Your task to perform on an android device: Show the shopping cart on costco.com. Search for "bose quietcomfort 35" on costco.com, select the first entry, and add it to the cart. Image 0: 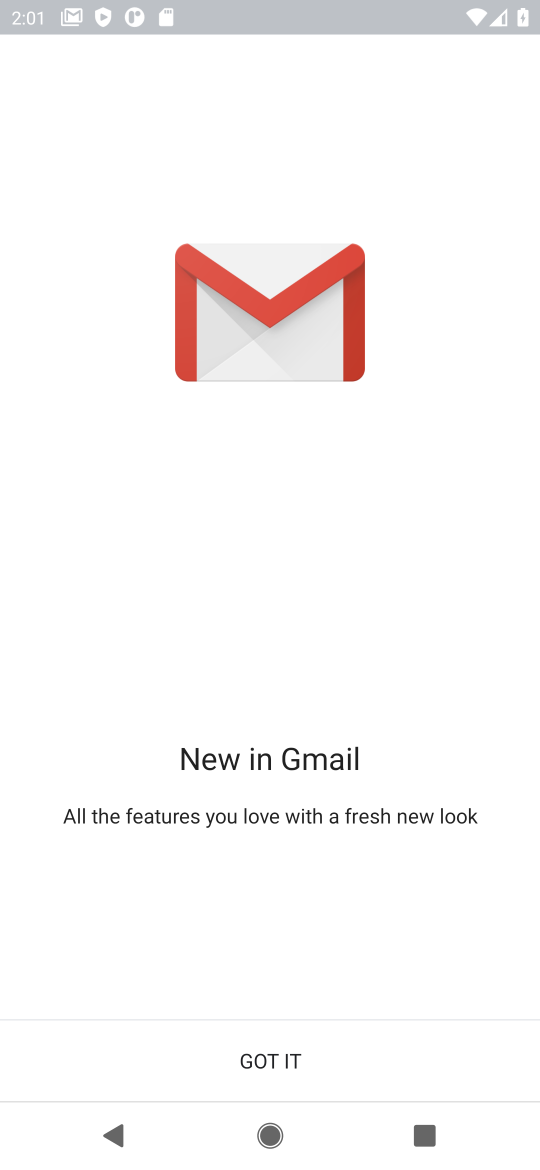
Step 0: press home button
Your task to perform on an android device: Show the shopping cart on costco.com. Search for "bose quietcomfort 35" on costco.com, select the first entry, and add it to the cart. Image 1: 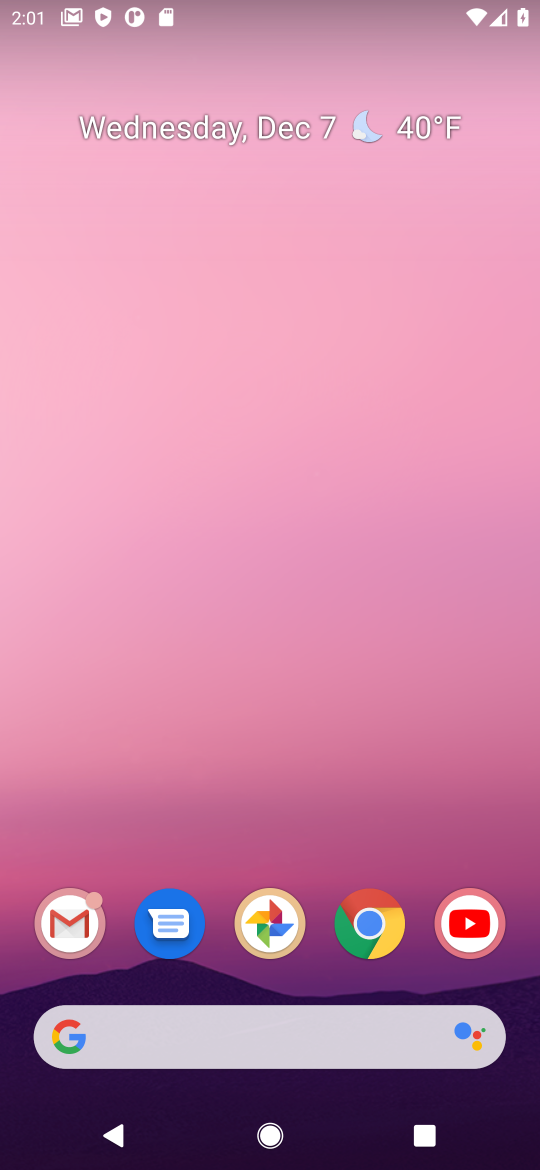
Step 1: click (368, 923)
Your task to perform on an android device: Show the shopping cart on costco.com. Search for "bose quietcomfort 35" on costco.com, select the first entry, and add it to the cart. Image 2: 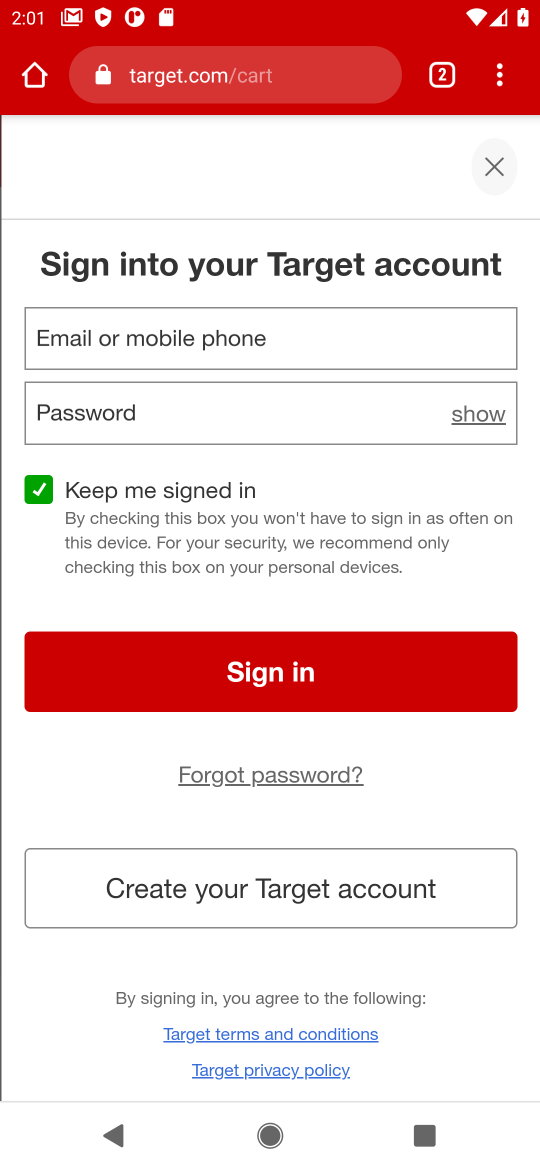
Step 2: click (235, 68)
Your task to perform on an android device: Show the shopping cart on costco.com. Search for "bose quietcomfort 35" on costco.com, select the first entry, and add it to the cart. Image 3: 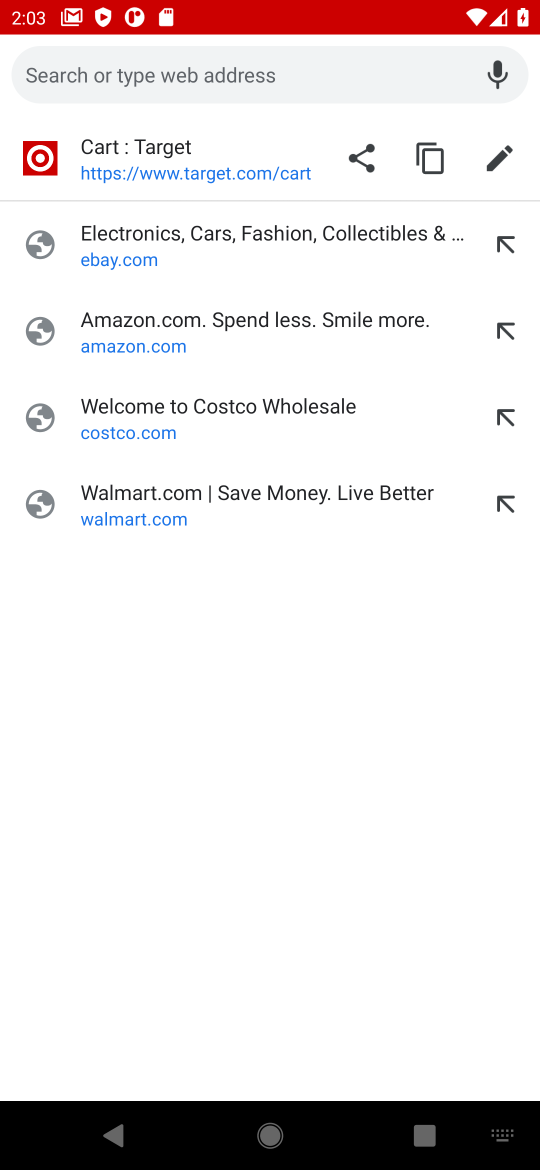
Step 3: click (155, 427)
Your task to perform on an android device: Show the shopping cart on costco.com. Search for "bose quietcomfort 35" on costco.com, select the first entry, and add it to the cart. Image 4: 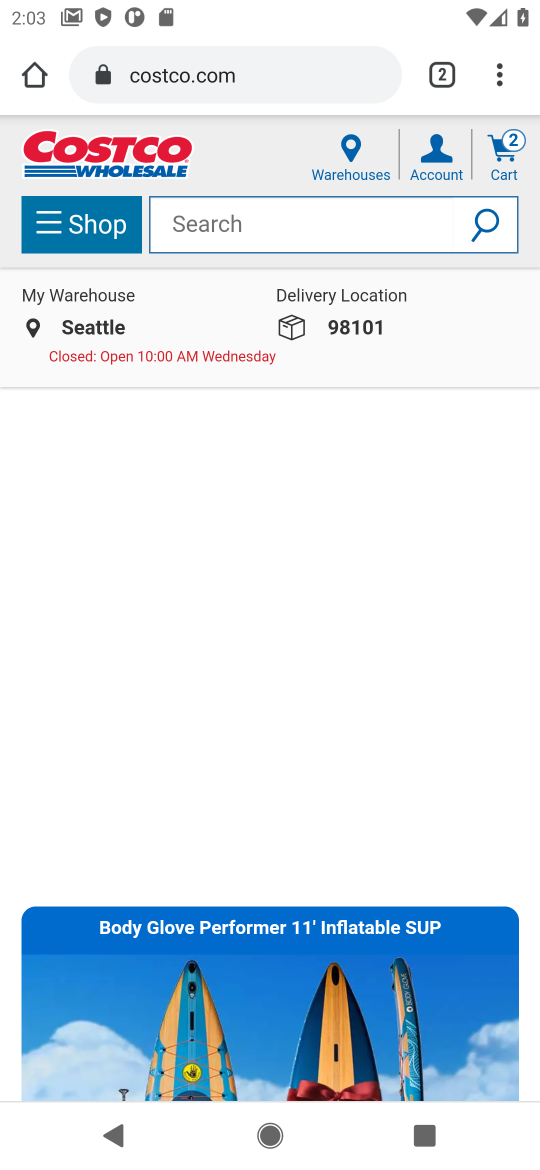
Step 4: click (236, 220)
Your task to perform on an android device: Show the shopping cart on costco.com. Search for "bose quietcomfort 35" on costco.com, select the first entry, and add it to the cart. Image 5: 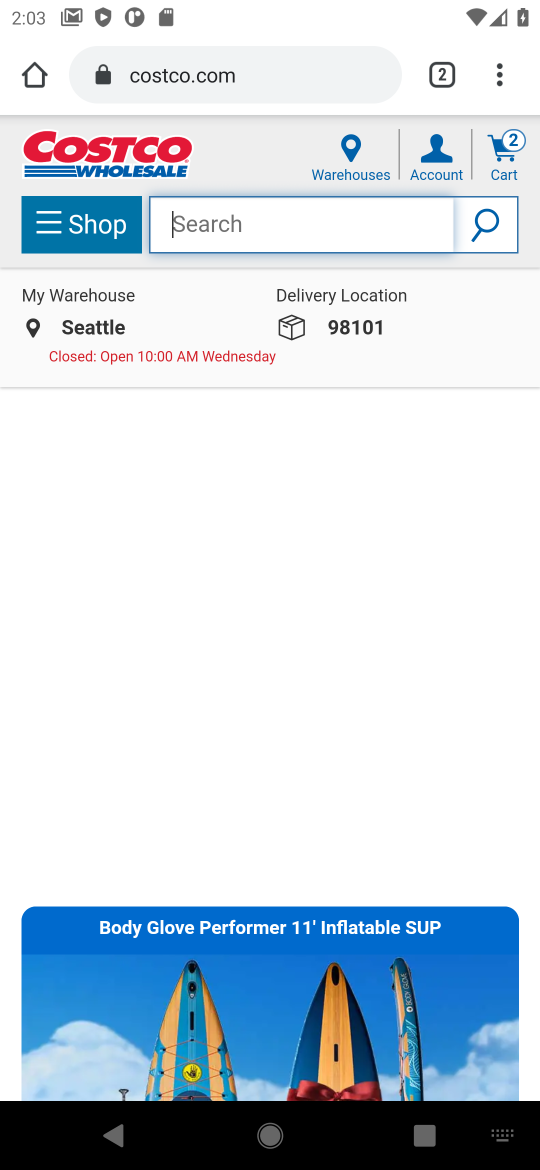
Step 5: type "bose quietcomfort 35"
Your task to perform on an android device: Show the shopping cart on costco.com. Search for "bose quietcomfort 35" on costco.com, select the first entry, and add it to the cart. Image 6: 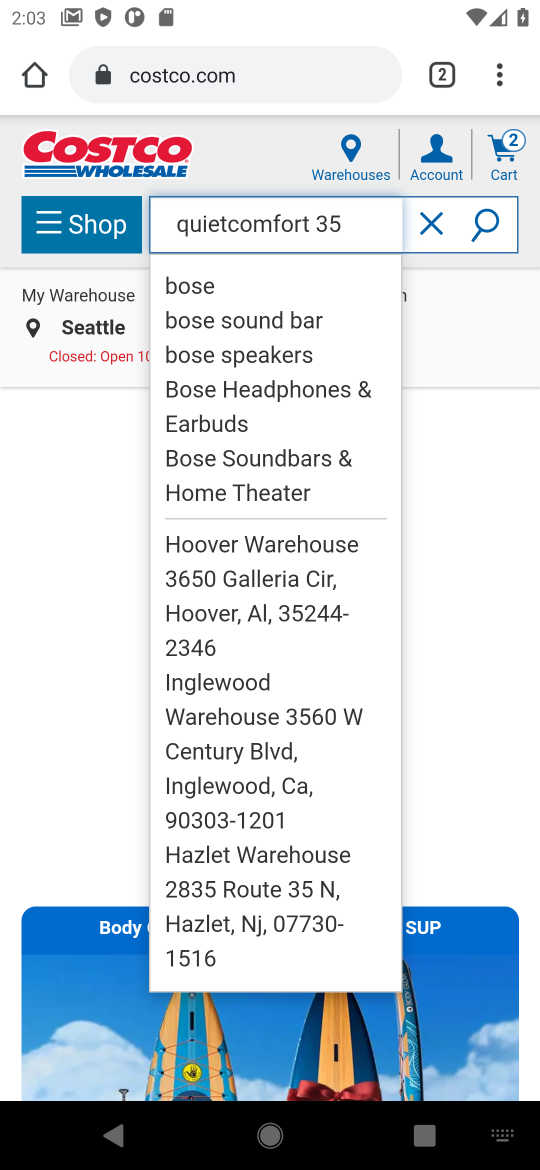
Step 6: click (192, 284)
Your task to perform on an android device: Show the shopping cart on costco.com. Search for "bose quietcomfort 35" on costco.com, select the first entry, and add it to the cart. Image 7: 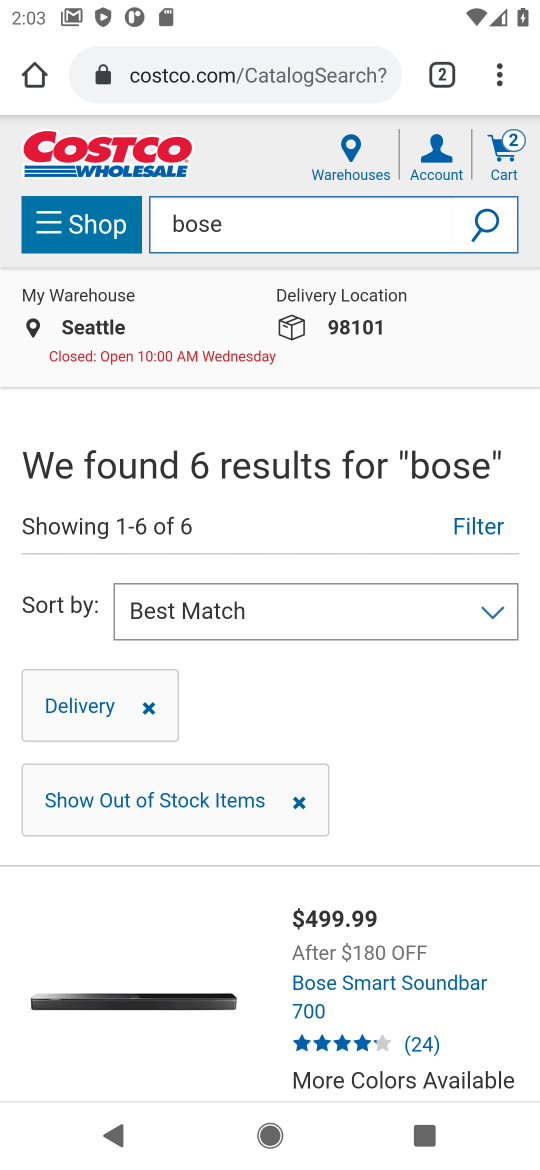
Step 7: click (204, 987)
Your task to perform on an android device: Show the shopping cart on costco.com. Search for "bose quietcomfort 35" on costco.com, select the first entry, and add it to the cart. Image 8: 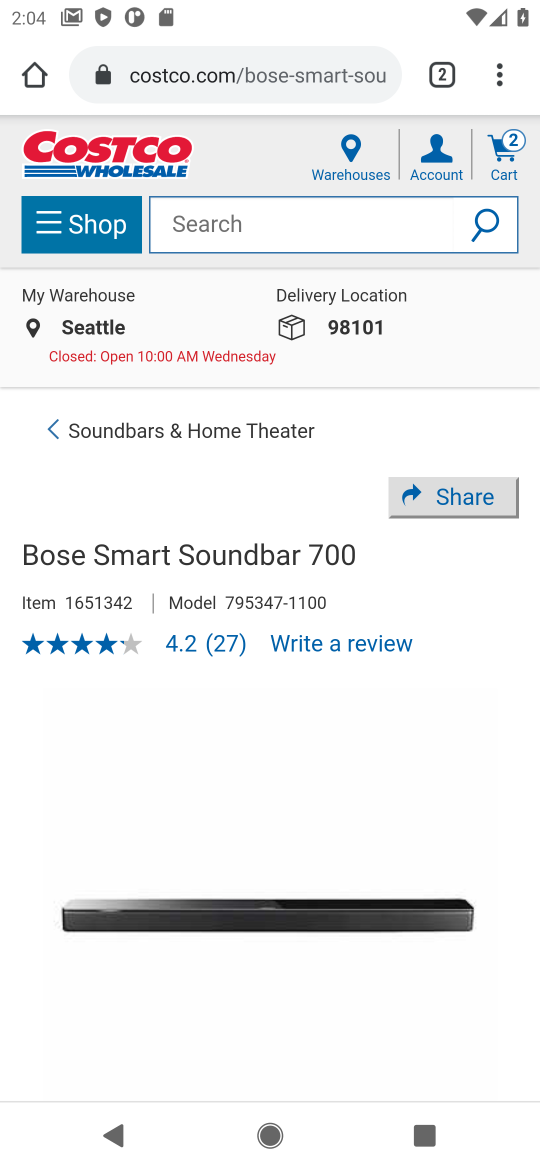
Step 8: drag from (301, 862) to (265, 192)
Your task to perform on an android device: Show the shopping cart on costco.com. Search for "bose quietcomfort 35" on costco.com, select the first entry, and add it to the cart. Image 9: 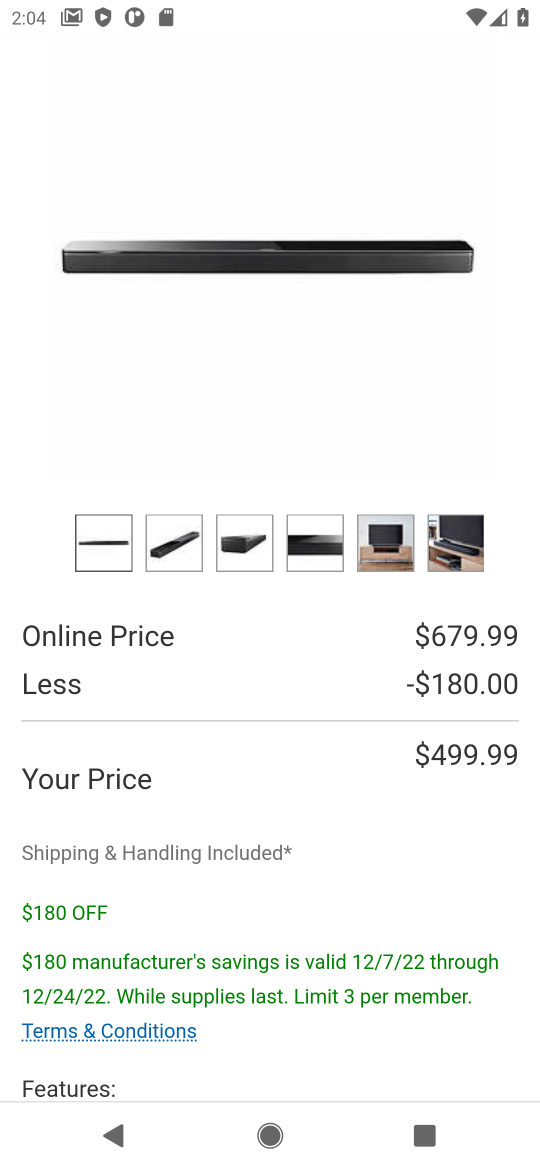
Step 9: drag from (405, 1018) to (376, 246)
Your task to perform on an android device: Show the shopping cart on costco.com. Search for "bose quietcomfort 35" on costco.com, select the first entry, and add it to the cart. Image 10: 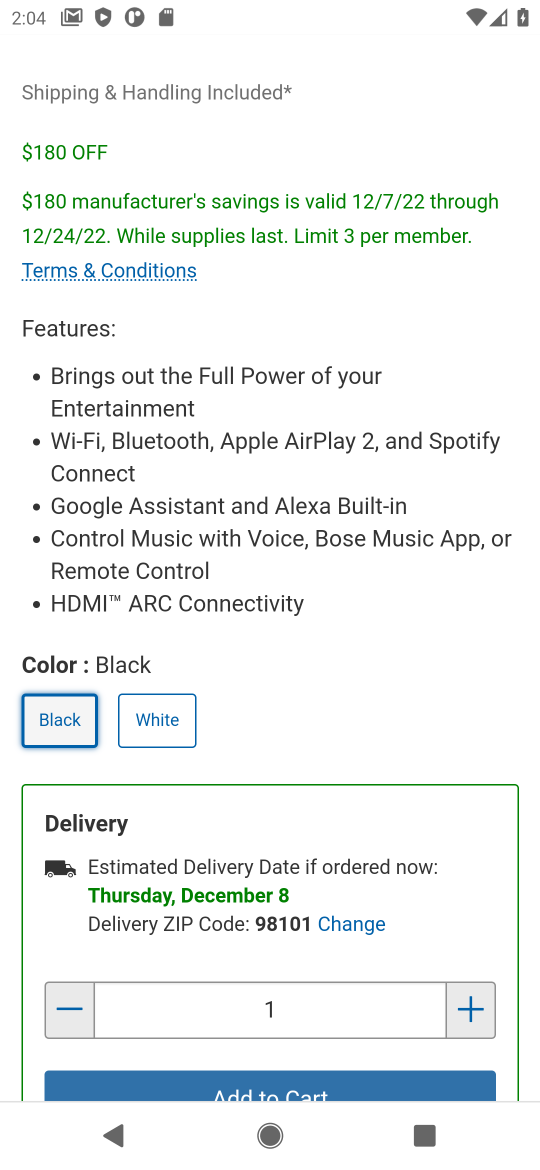
Step 10: drag from (336, 978) to (336, 111)
Your task to perform on an android device: Show the shopping cart on costco.com. Search for "bose quietcomfort 35" on costco.com, select the first entry, and add it to the cart. Image 11: 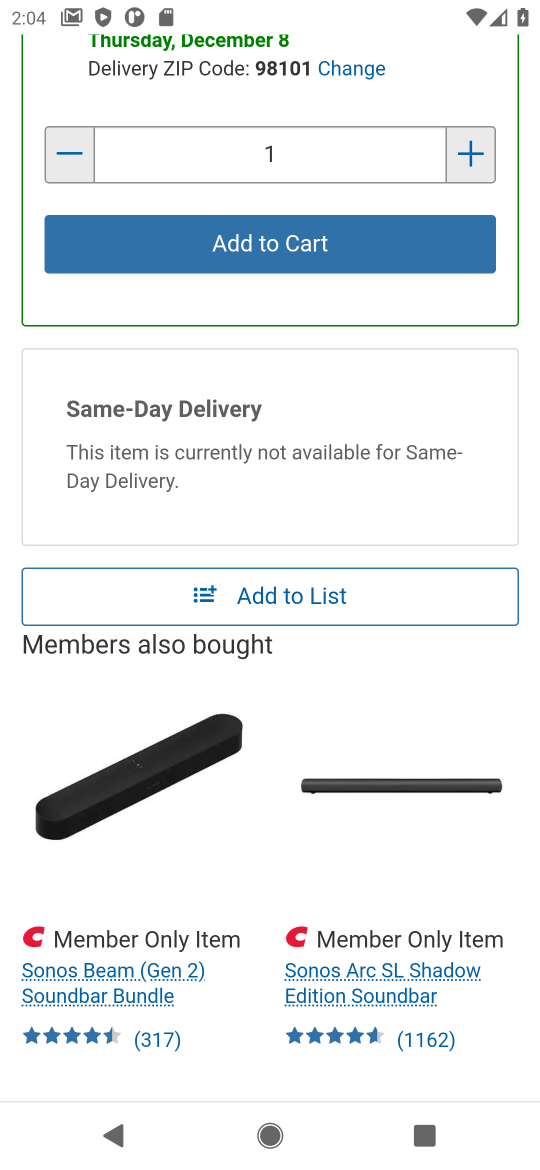
Step 11: click (287, 253)
Your task to perform on an android device: Show the shopping cart on costco.com. Search for "bose quietcomfort 35" on costco.com, select the first entry, and add it to the cart. Image 12: 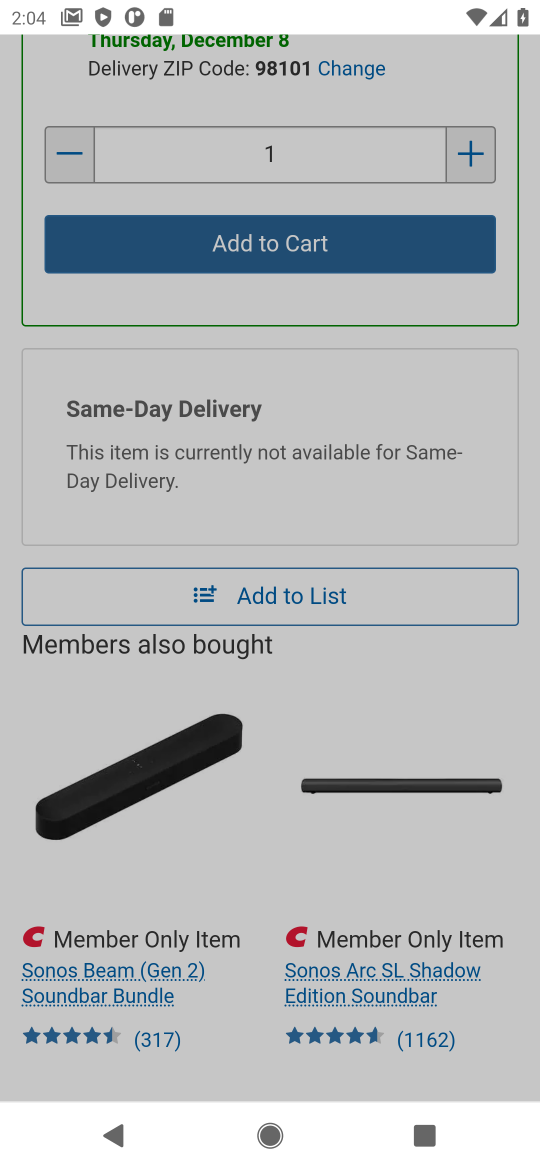
Step 12: task complete